Your task to perform on an android device: Open Chrome and go to the settings page Image 0: 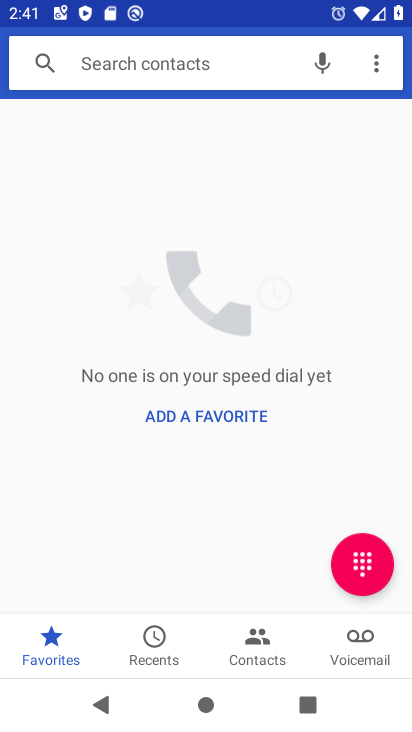
Step 0: drag from (210, 580) to (202, 354)
Your task to perform on an android device: Open Chrome and go to the settings page Image 1: 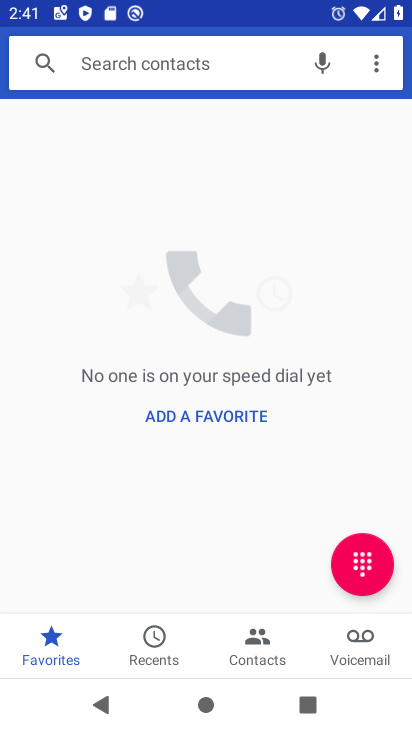
Step 1: press home button
Your task to perform on an android device: Open Chrome and go to the settings page Image 2: 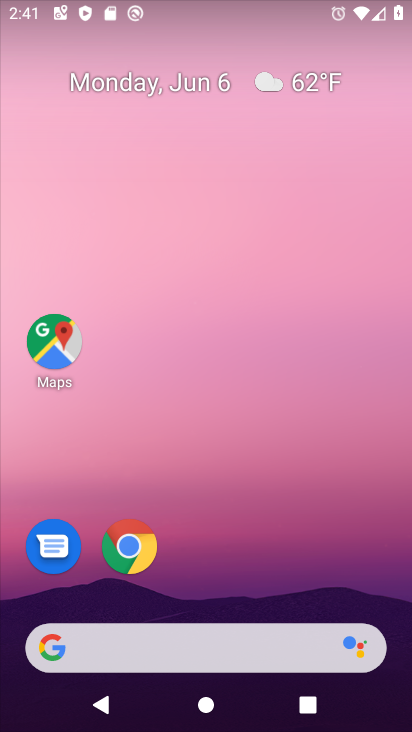
Step 2: click (112, 547)
Your task to perform on an android device: Open Chrome and go to the settings page Image 3: 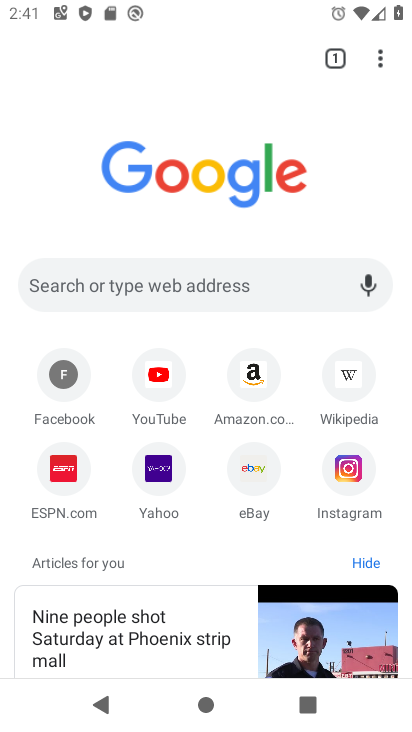
Step 3: click (371, 54)
Your task to perform on an android device: Open Chrome and go to the settings page Image 4: 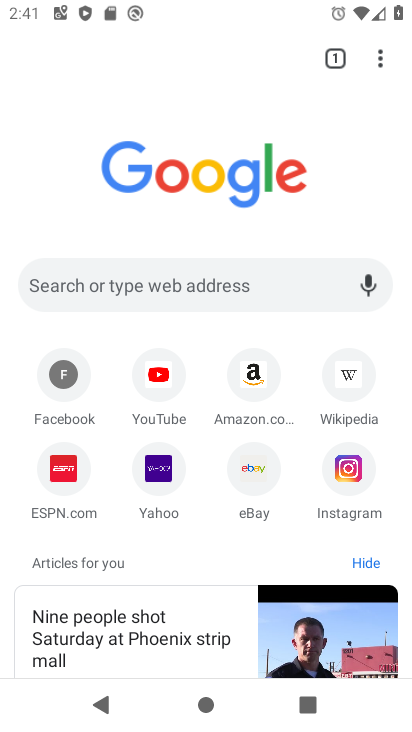
Step 4: task complete